Your task to perform on an android device: What's the weather like in Mumbai? Image 0: 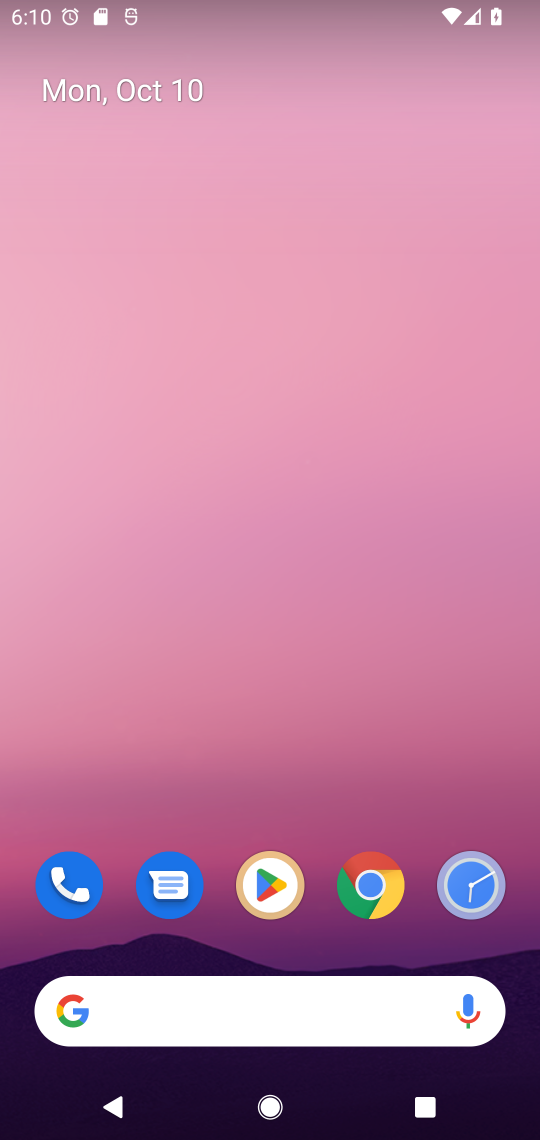
Step 0: click (378, 882)
Your task to perform on an android device: What's the weather like in Mumbai? Image 1: 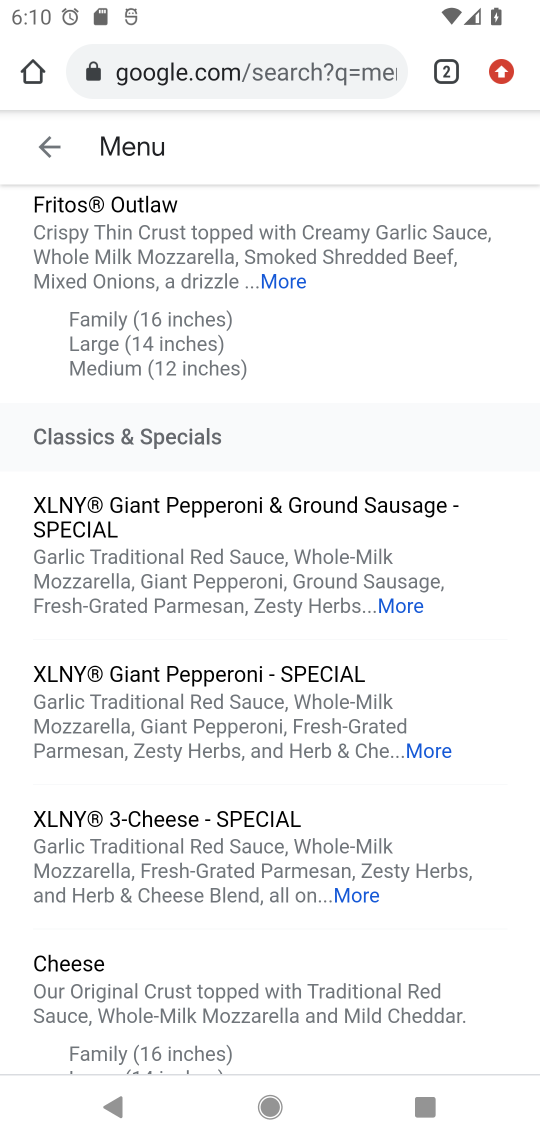
Step 1: click (228, 72)
Your task to perform on an android device: What's the weather like in Mumbai? Image 2: 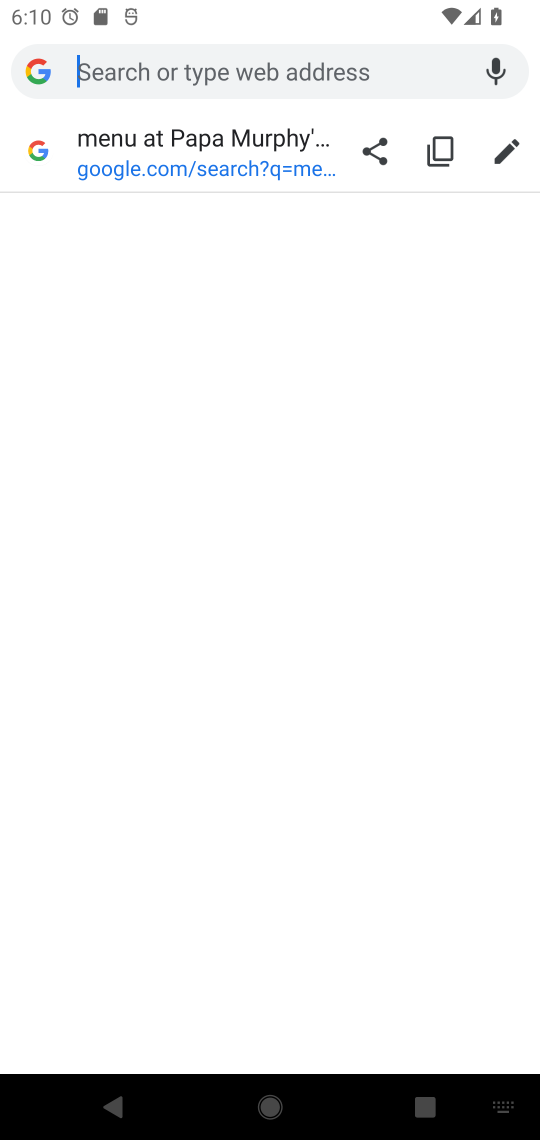
Step 2: type "weather like in Mumbai"
Your task to perform on an android device: What's the weather like in Mumbai? Image 3: 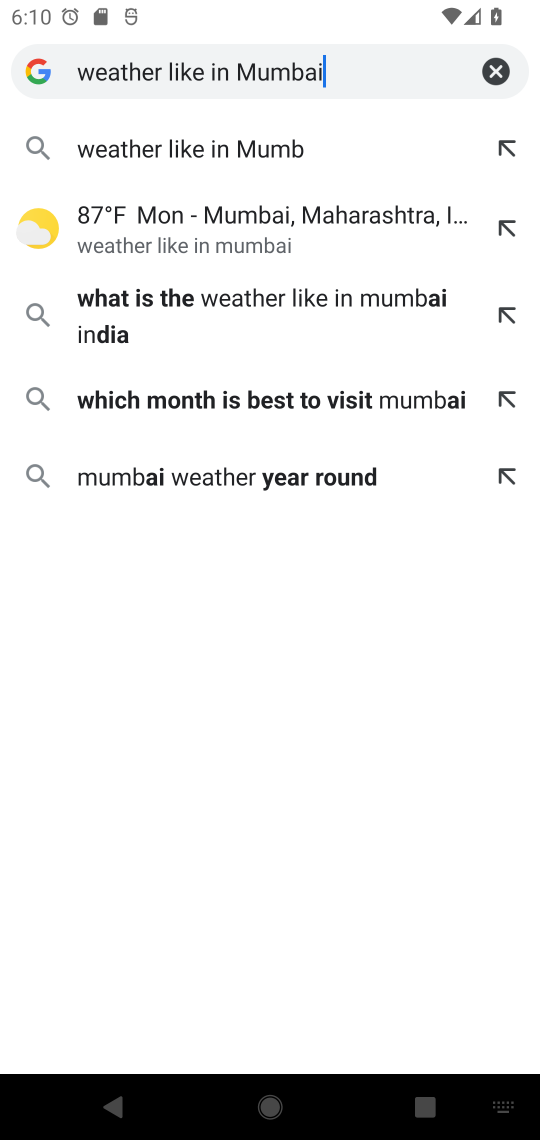
Step 3: type ""
Your task to perform on an android device: What's the weather like in Mumbai? Image 4: 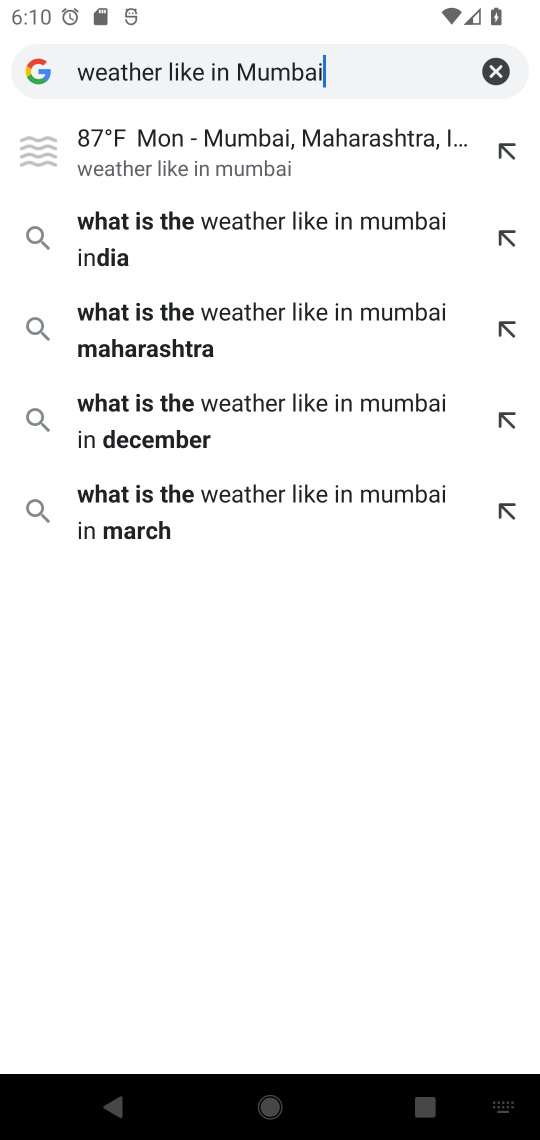
Step 4: click (296, 146)
Your task to perform on an android device: What's the weather like in Mumbai? Image 5: 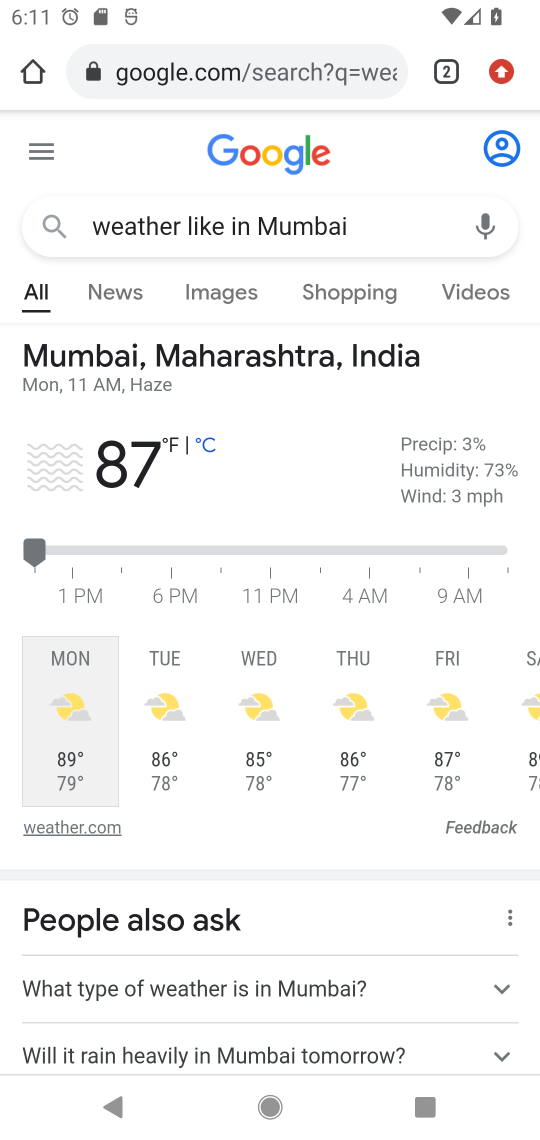
Step 5: task complete